Your task to perform on an android device: turn off airplane mode Image 0: 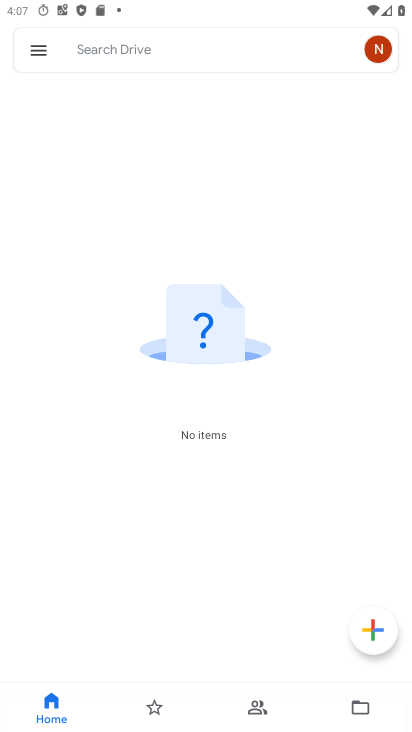
Step 0: press home button
Your task to perform on an android device: turn off airplane mode Image 1: 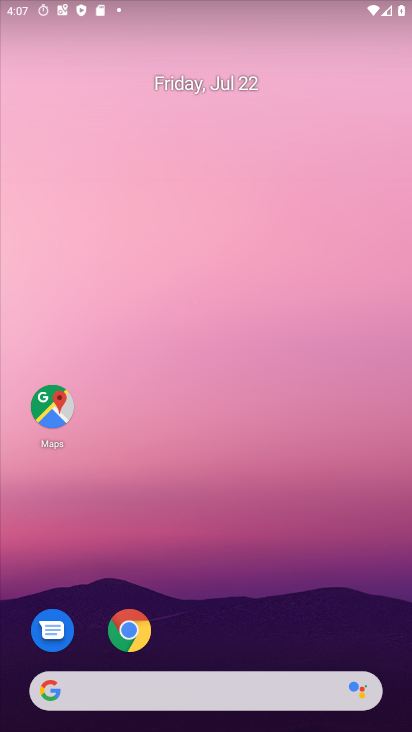
Step 1: drag from (275, 626) to (283, 5)
Your task to perform on an android device: turn off airplane mode Image 2: 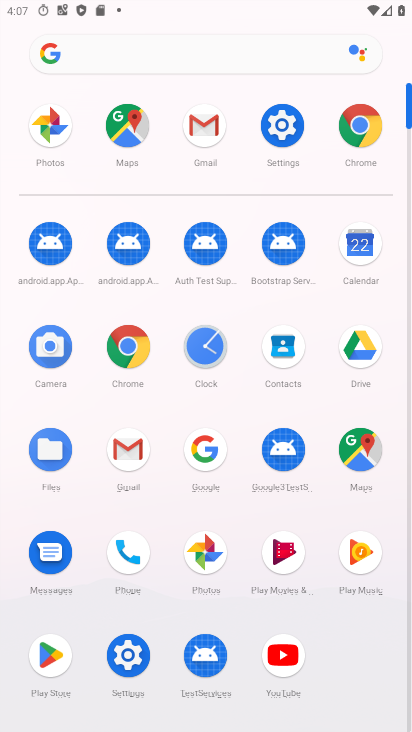
Step 2: click (280, 118)
Your task to perform on an android device: turn off airplane mode Image 3: 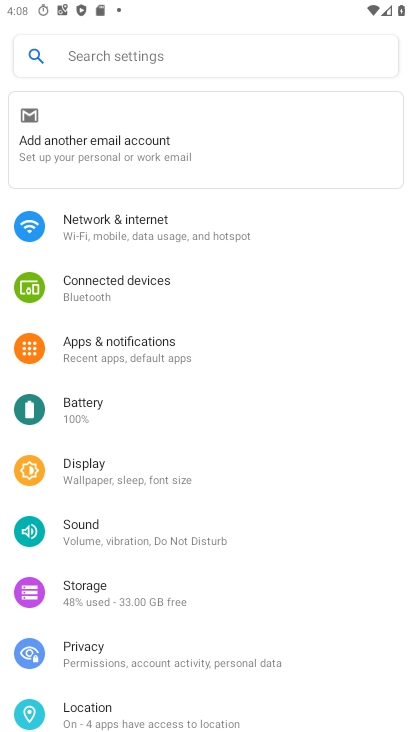
Step 3: click (202, 236)
Your task to perform on an android device: turn off airplane mode Image 4: 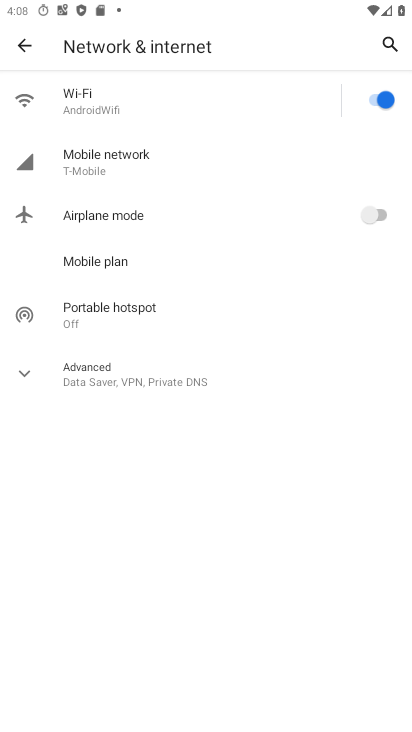
Step 4: task complete